Your task to perform on an android device: Show me the alarms in the clock app Image 0: 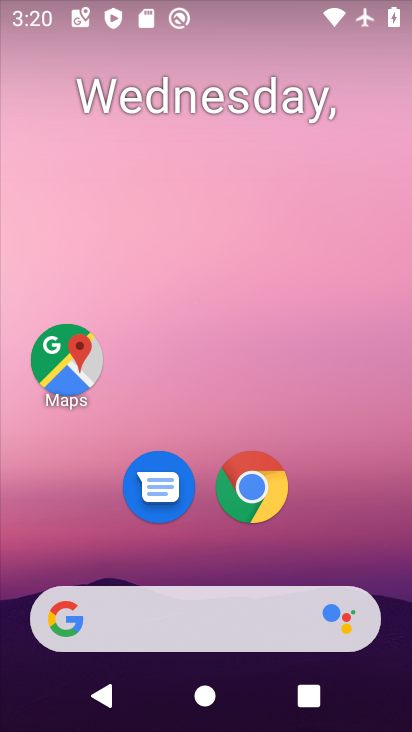
Step 0: drag from (342, 530) to (340, 104)
Your task to perform on an android device: Show me the alarms in the clock app Image 1: 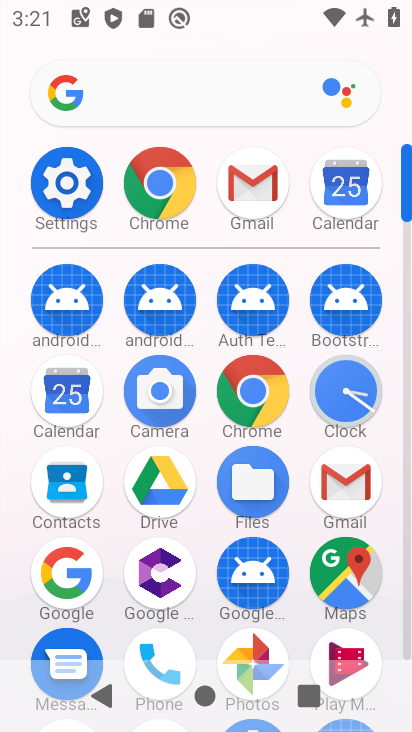
Step 1: click (362, 403)
Your task to perform on an android device: Show me the alarms in the clock app Image 2: 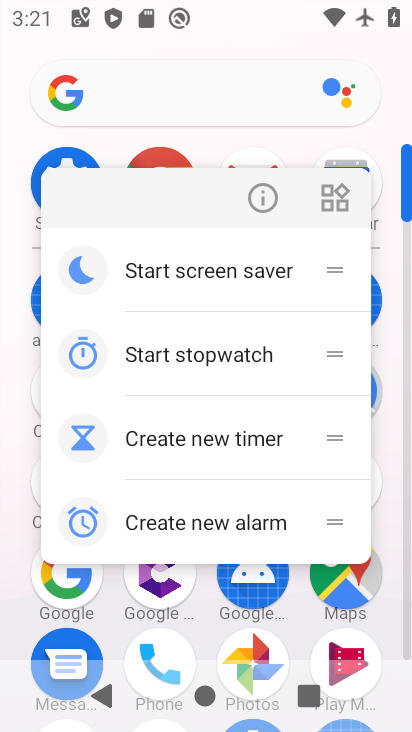
Step 2: click (376, 397)
Your task to perform on an android device: Show me the alarms in the clock app Image 3: 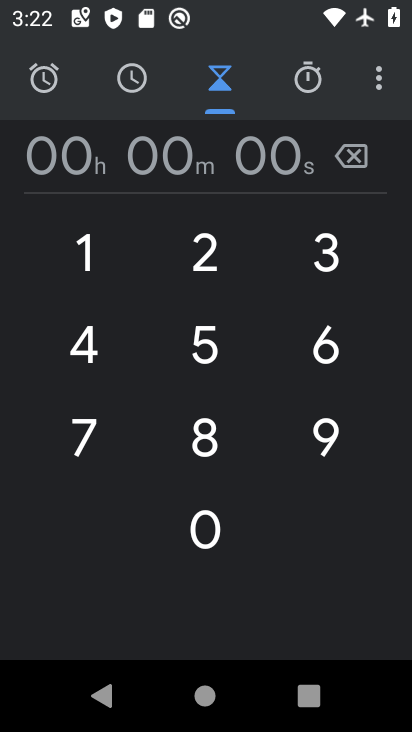
Step 3: click (61, 99)
Your task to perform on an android device: Show me the alarms in the clock app Image 4: 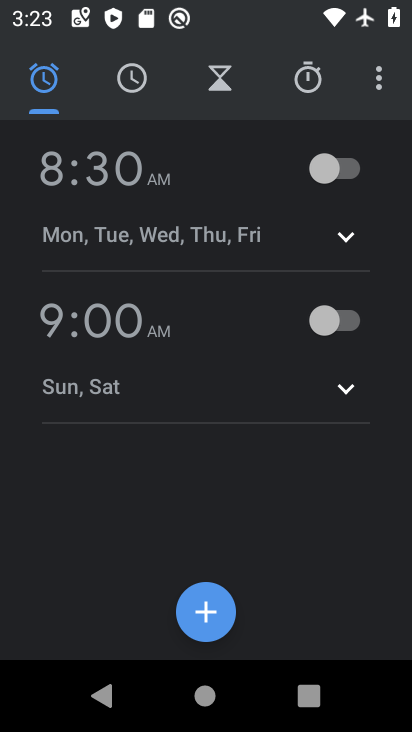
Step 4: task complete